Your task to perform on an android device: Open the calendar app, open the side menu, and click the "Day" option Image 0: 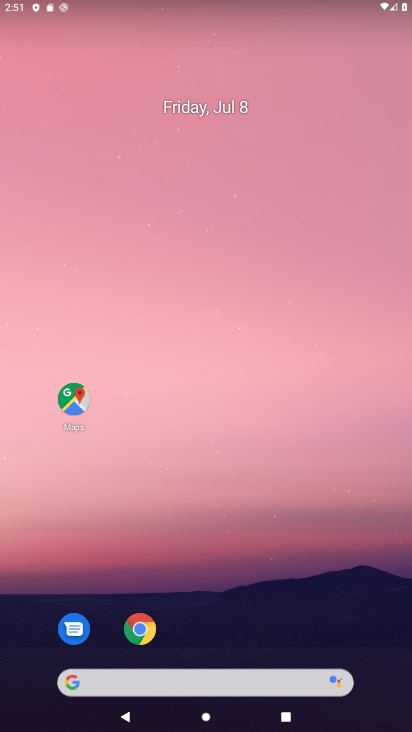
Step 0: press home button
Your task to perform on an android device: Open the calendar app, open the side menu, and click the "Day" option Image 1: 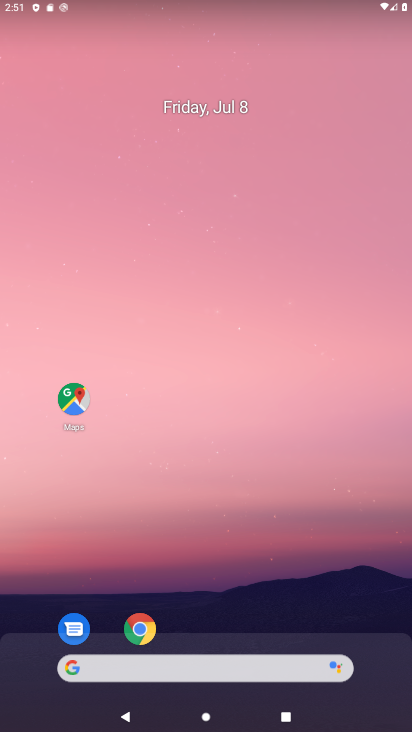
Step 1: drag from (223, 655) to (233, 34)
Your task to perform on an android device: Open the calendar app, open the side menu, and click the "Day" option Image 2: 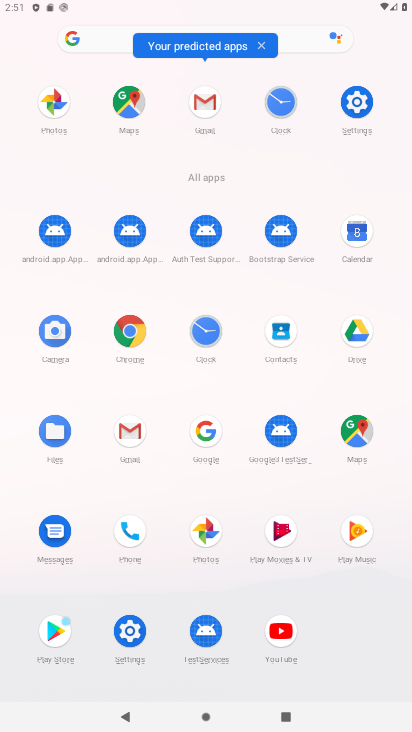
Step 2: click (354, 229)
Your task to perform on an android device: Open the calendar app, open the side menu, and click the "Day" option Image 3: 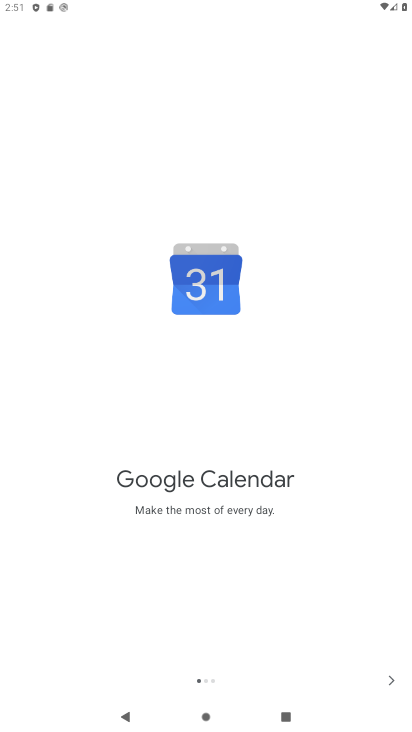
Step 3: click (387, 678)
Your task to perform on an android device: Open the calendar app, open the side menu, and click the "Day" option Image 4: 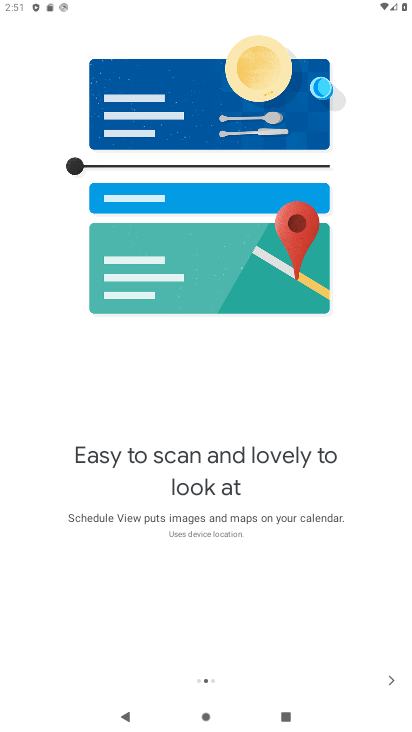
Step 4: click (390, 674)
Your task to perform on an android device: Open the calendar app, open the side menu, and click the "Day" option Image 5: 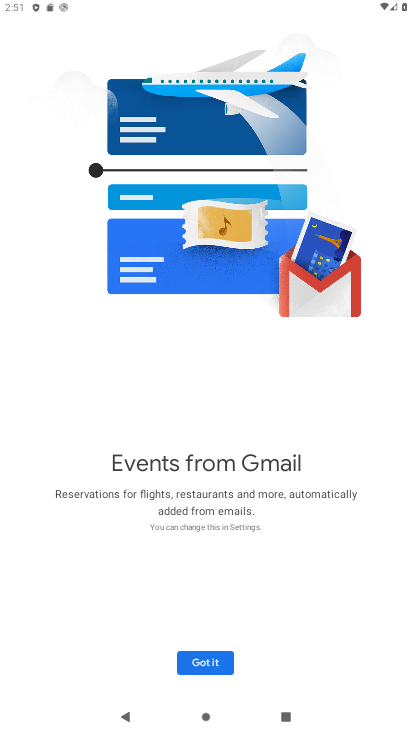
Step 5: click (211, 658)
Your task to perform on an android device: Open the calendar app, open the side menu, and click the "Day" option Image 6: 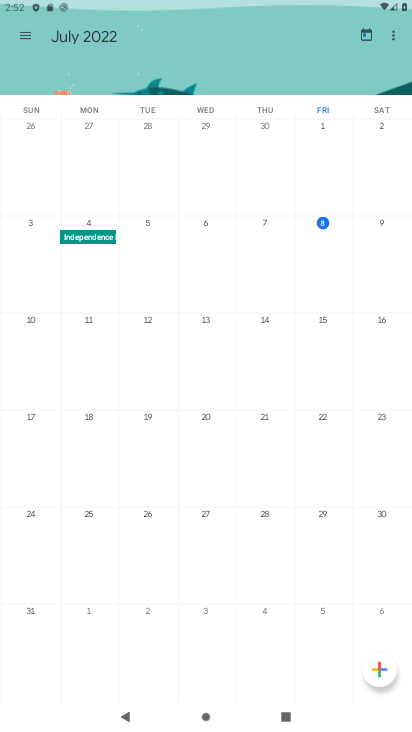
Step 6: click (25, 34)
Your task to perform on an android device: Open the calendar app, open the side menu, and click the "Day" option Image 7: 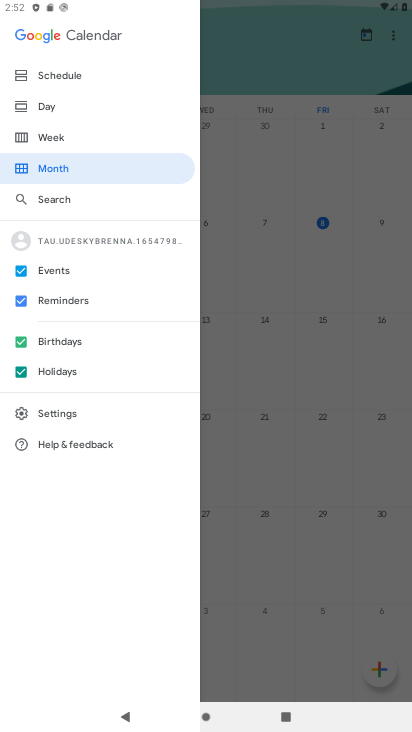
Step 7: click (47, 108)
Your task to perform on an android device: Open the calendar app, open the side menu, and click the "Day" option Image 8: 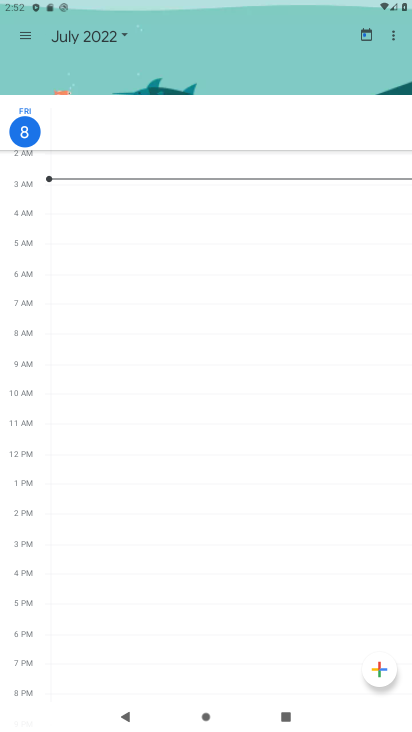
Step 8: task complete